Your task to perform on an android device: Open network settings Image 0: 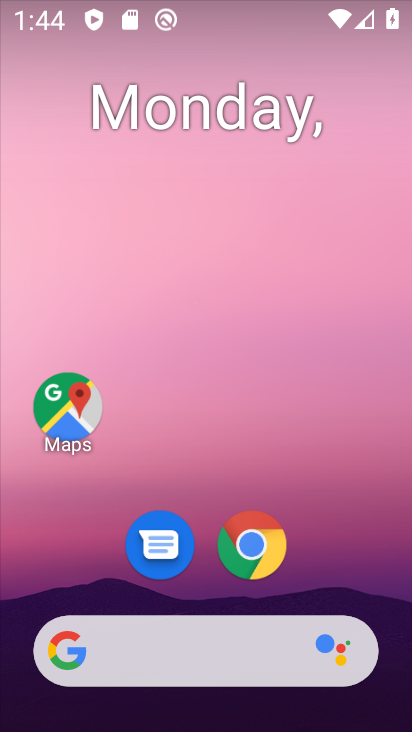
Step 0: drag from (224, 450) to (227, 50)
Your task to perform on an android device: Open network settings Image 1: 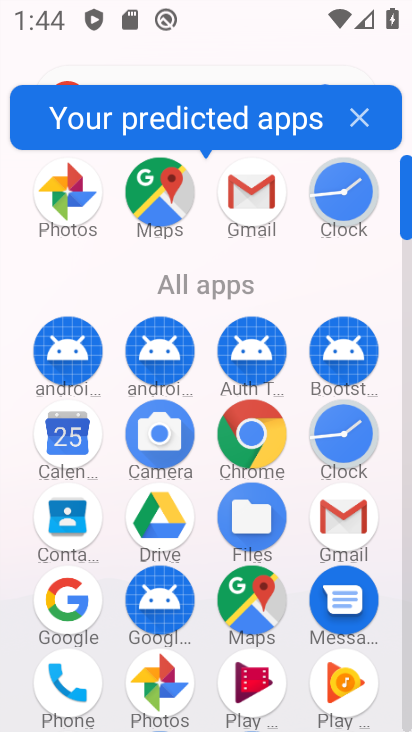
Step 1: drag from (203, 610) to (234, 195)
Your task to perform on an android device: Open network settings Image 2: 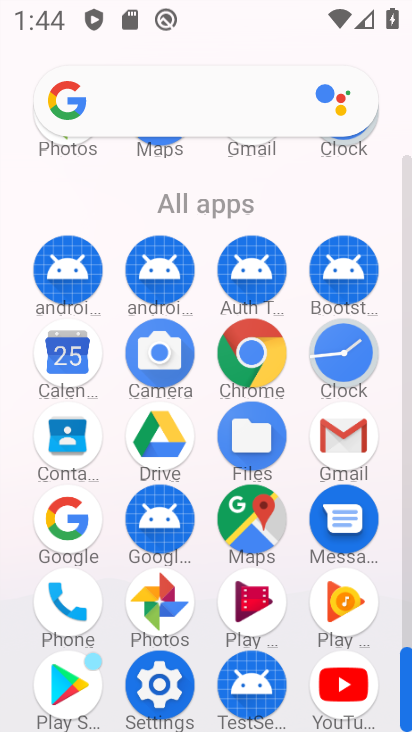
Step 2: click (161, 693)
Your task to perform on an android device: Open network settings Image 3: 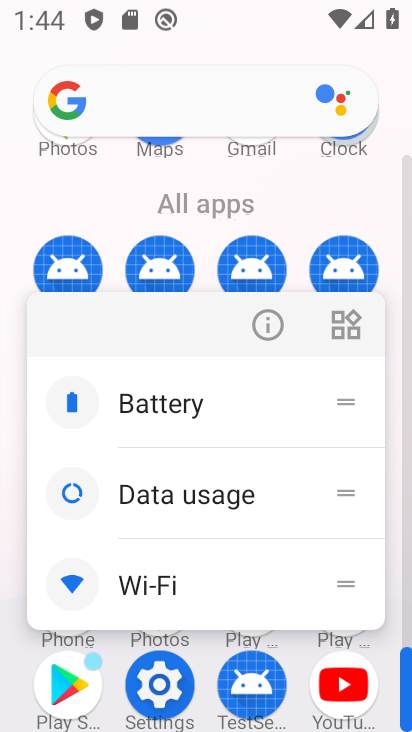
Step 3: click (165, 677)
Your task to perform on an android device: Open network settings Image 4: 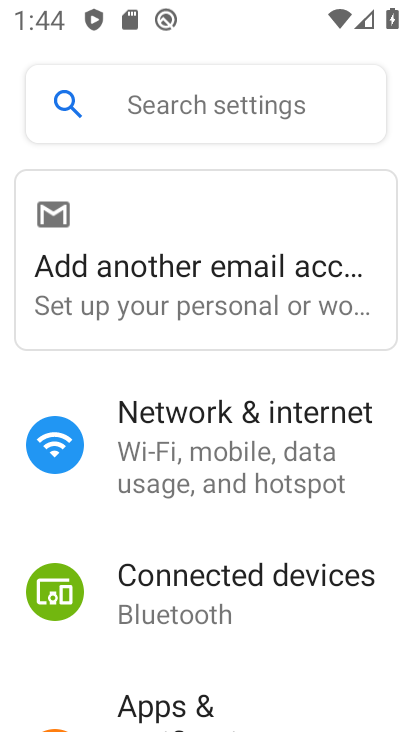
Step 4: drag from (171, 286) to (180, 141)
Your task to perform on an android device: Open network settings Image 5: 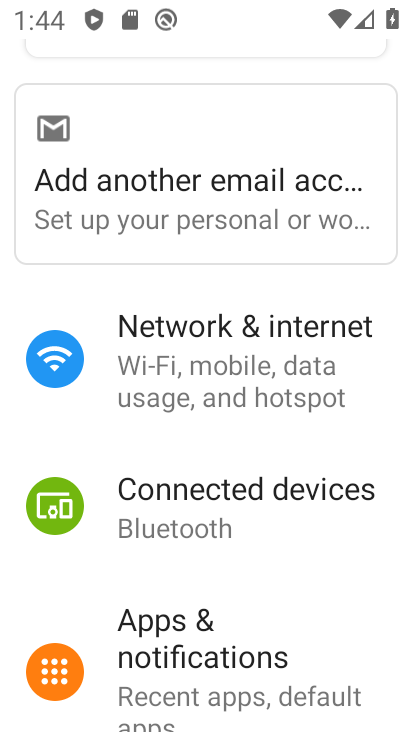
Step 5: click (199, 348)
Your task to perform on an android device: Open network settings Image 6: 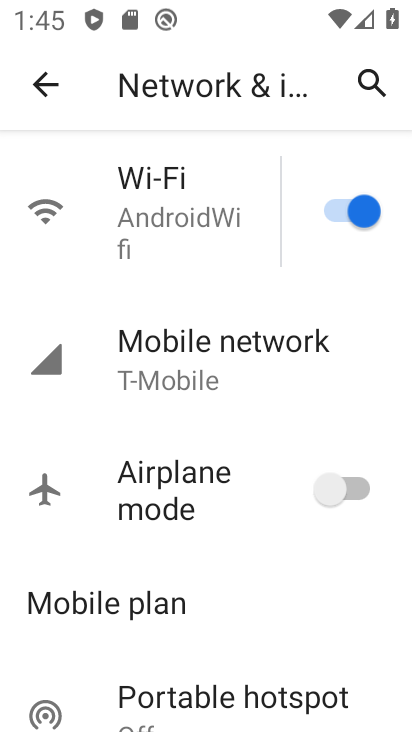
Step 6: task complete